Your task to perform on an android device: turn off airplane mode Image 0: 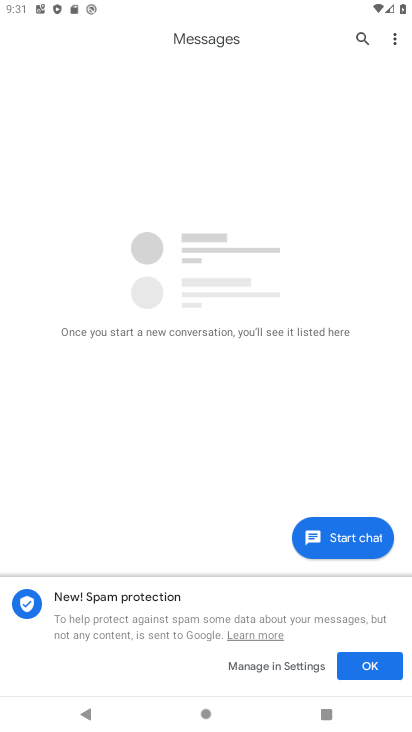
Step 0: press home button
Your task to perform on an android device: turn off airplane mode Image 1: 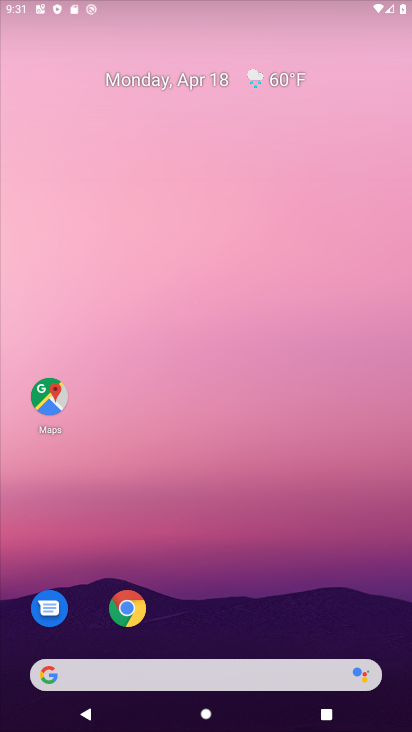
Step 1: drag from (187, 551) to (277, 26)
Your task to perform on an android device: turn off airplane mode Image 2: 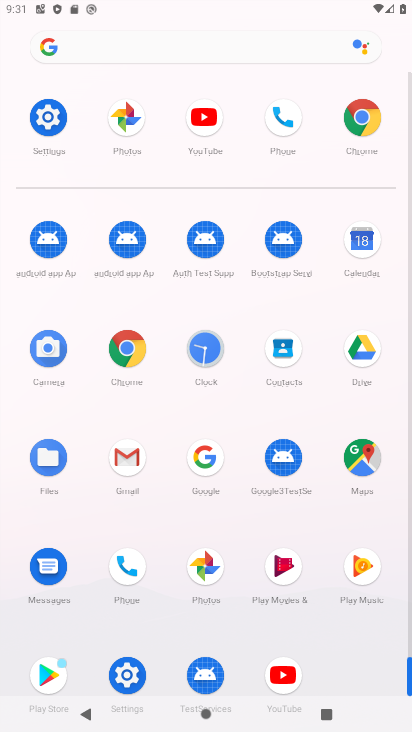
Step 2: click (40, 130)
Your task to perform on an android device: turn off airplane mode Image 3: 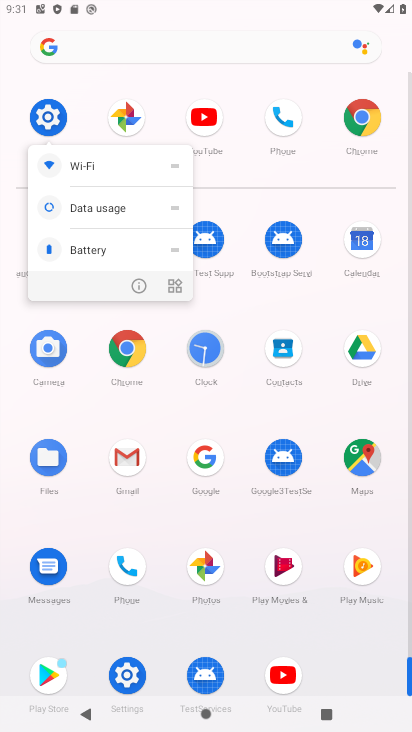
Step 3: click (132, 290)
Your task to perform on an android device: turn off airplane mode Image 4: 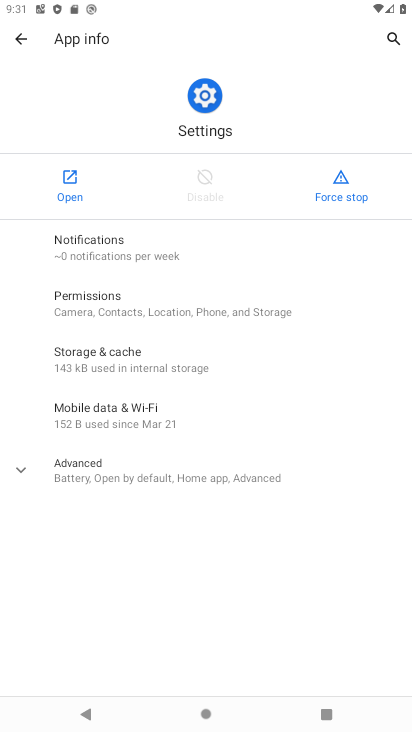
Step 4: click (76, 174)
Your task to perform on an android device: turn off airplane mode Image 5: 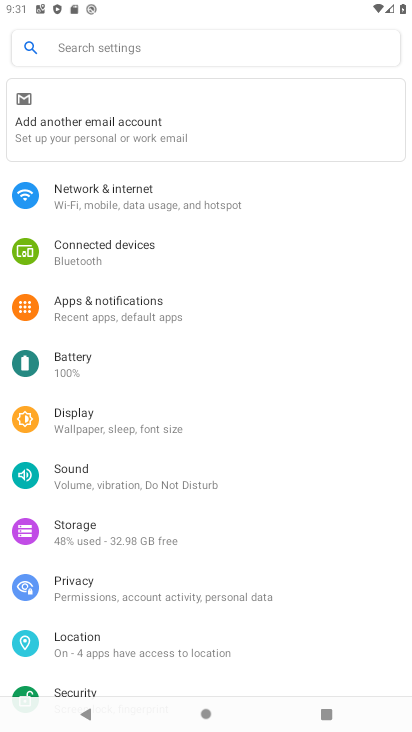
Step 5: click (142, 200)
Your task to perform on an android device: turn off airplane mode Image 6: 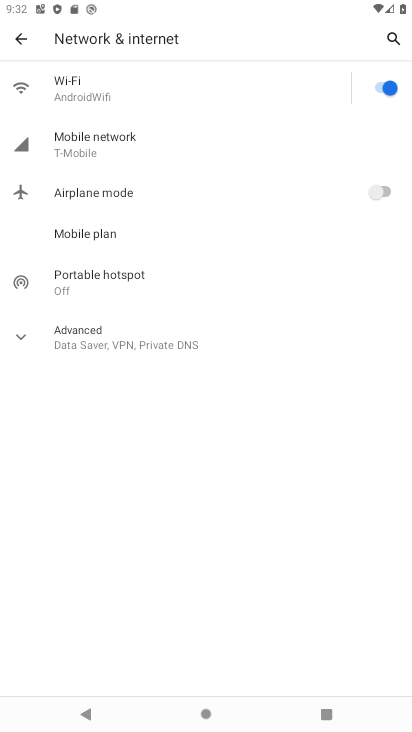
Step 6: click (187, 200)
Your task to perform on an android device: turn off airplane mode Image 7: 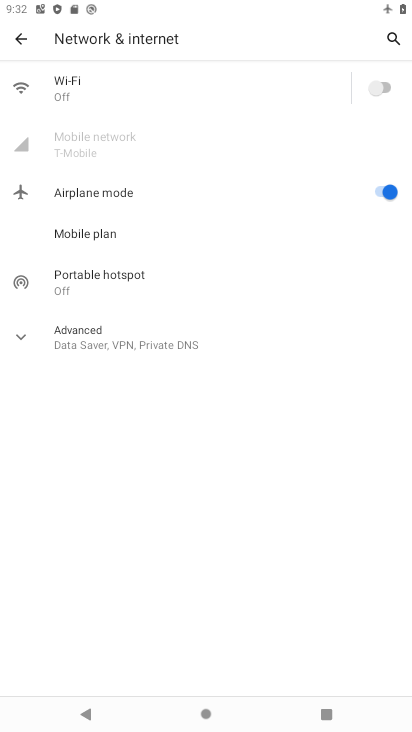
Step 7: task complete